Your task to perform on an android device: Open the calendar and show me this week's events? Image 0: 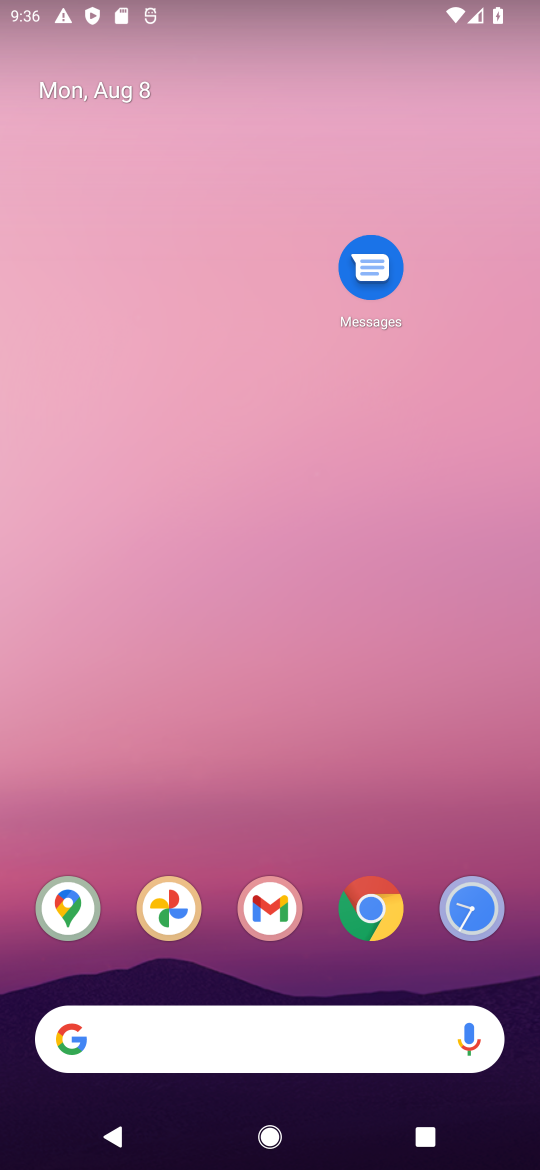
Step 0: click (111, 112)
Your task to perform on an android device: Open the calendar and show me this week's events? Image 1: 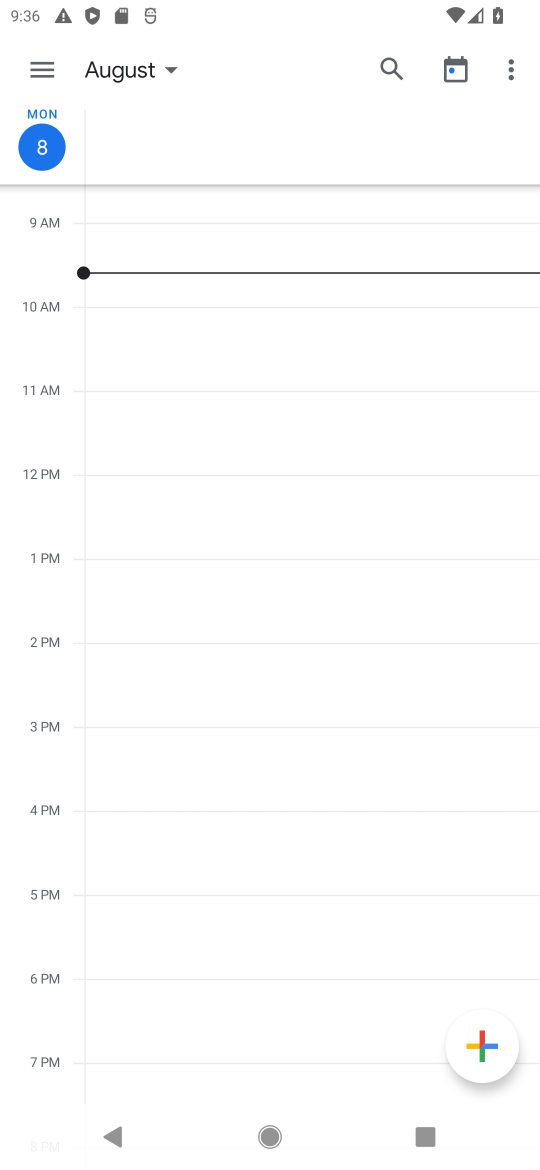
Step 1: task complete